Your task to perform on an android device: Search for seafood restaurants on Google Maps Image 0: 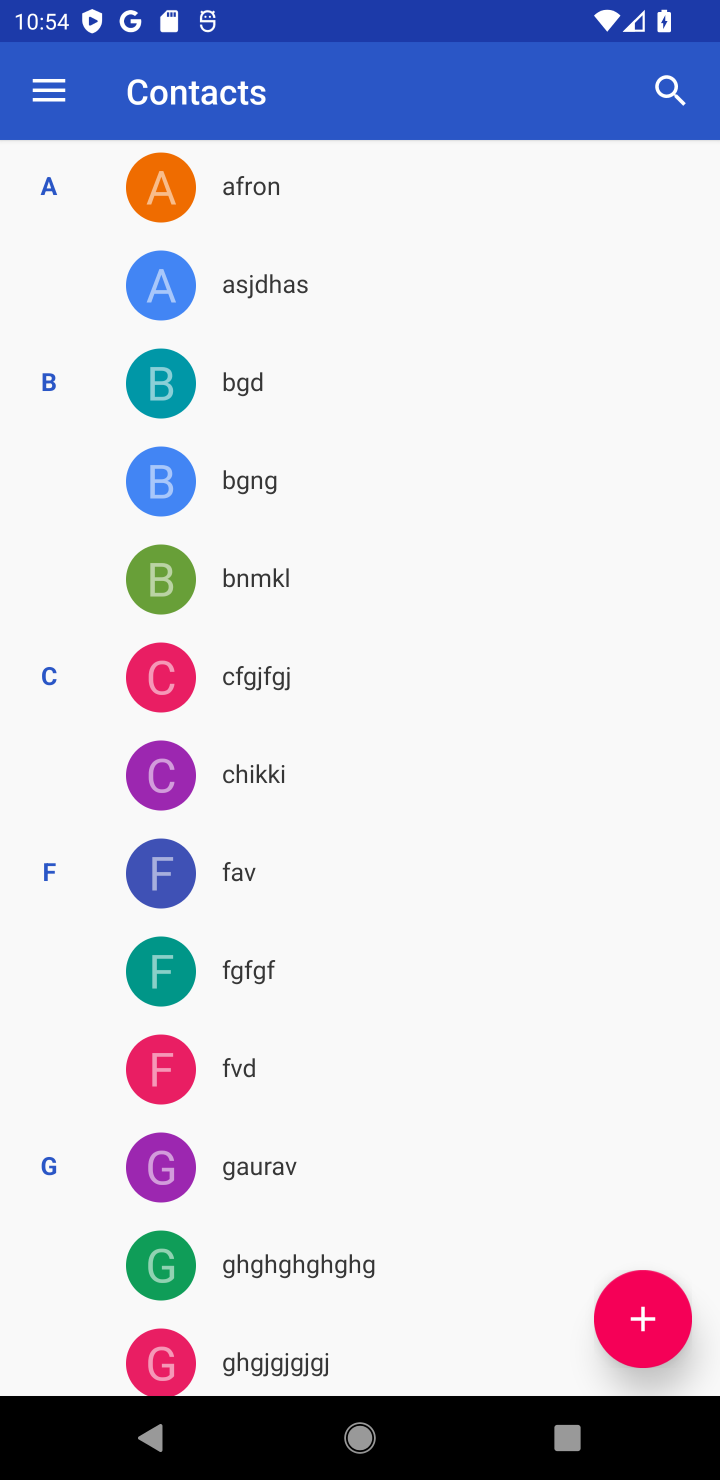
Step 0: press home button
Your task to perform on an android device: Search for seafood restaurants on Google Maps Image 1: 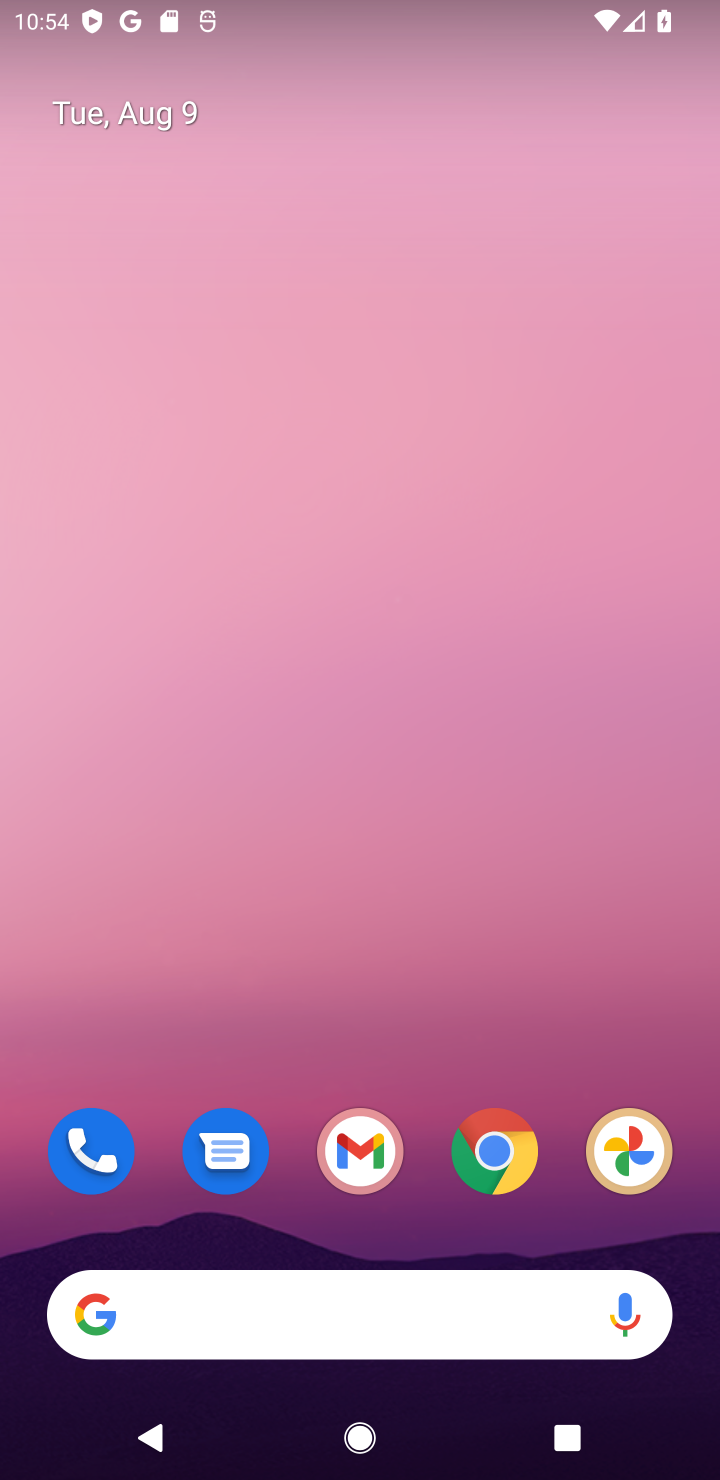
Step 1: drag from (309, 1220) to (357, 156)
Your task to perform on an android device: Search for seafood restaurants on Google Maps Image 2: 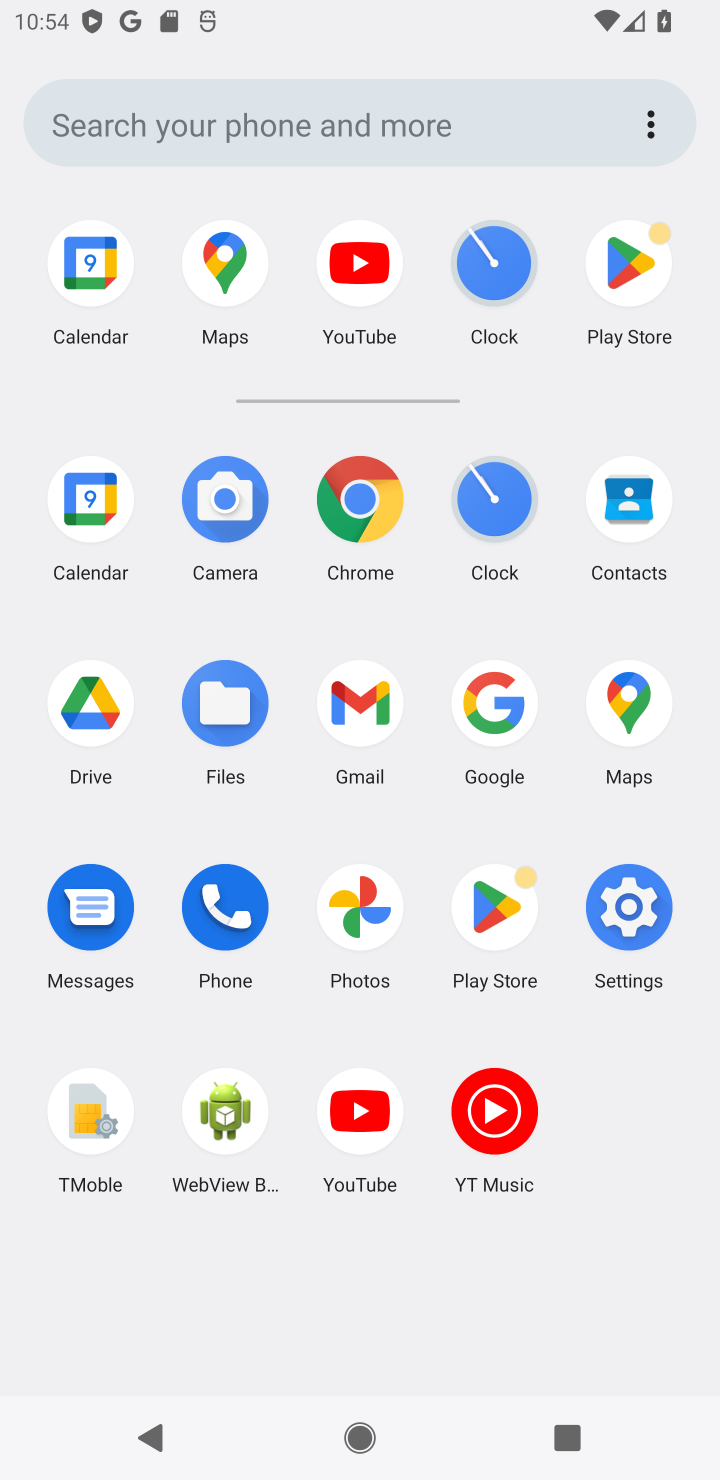
Step 2: click (603, 707)
Your task to perform on an android device: Search for seafood restaurants on Google Maps Image 3: 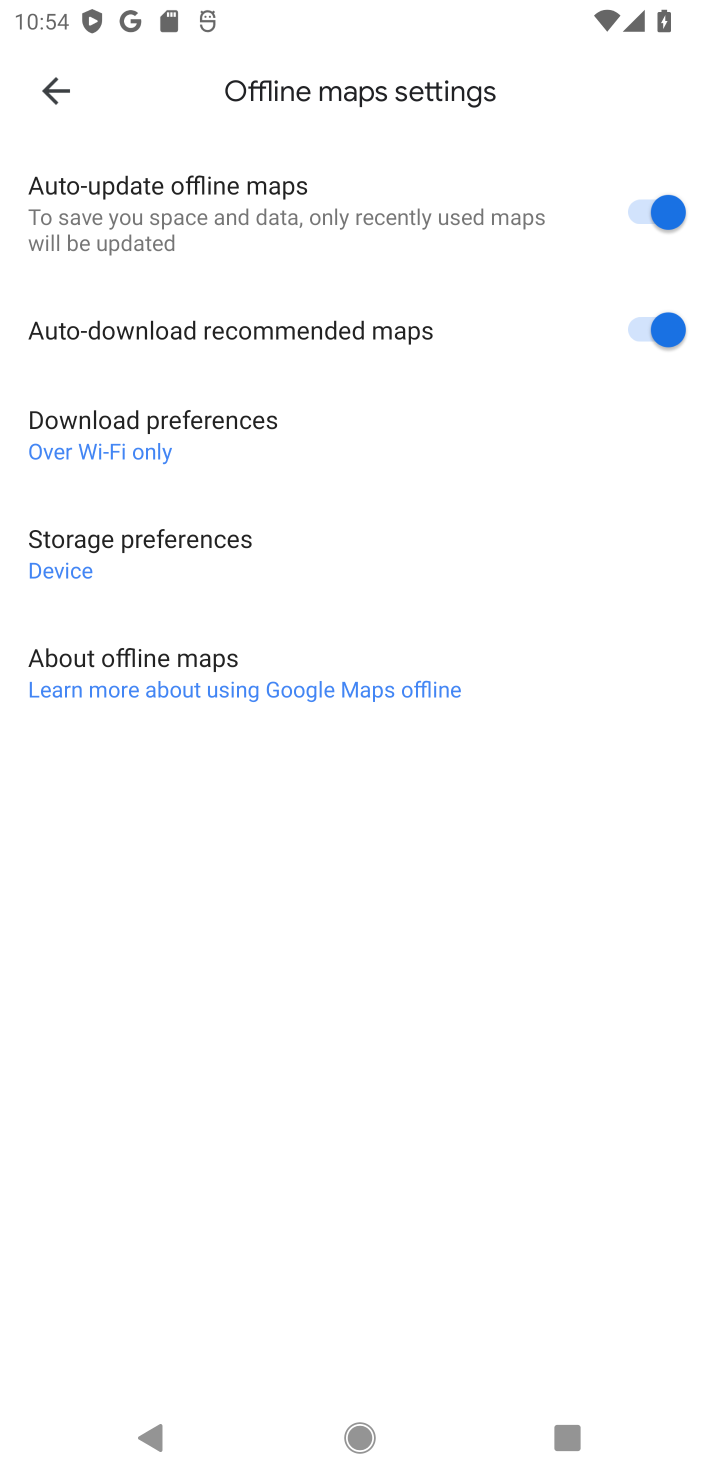
Step 3: click (58, 91)
Your task to perform on an android device: Search for seafood restaurants on Google Maps Image 4: 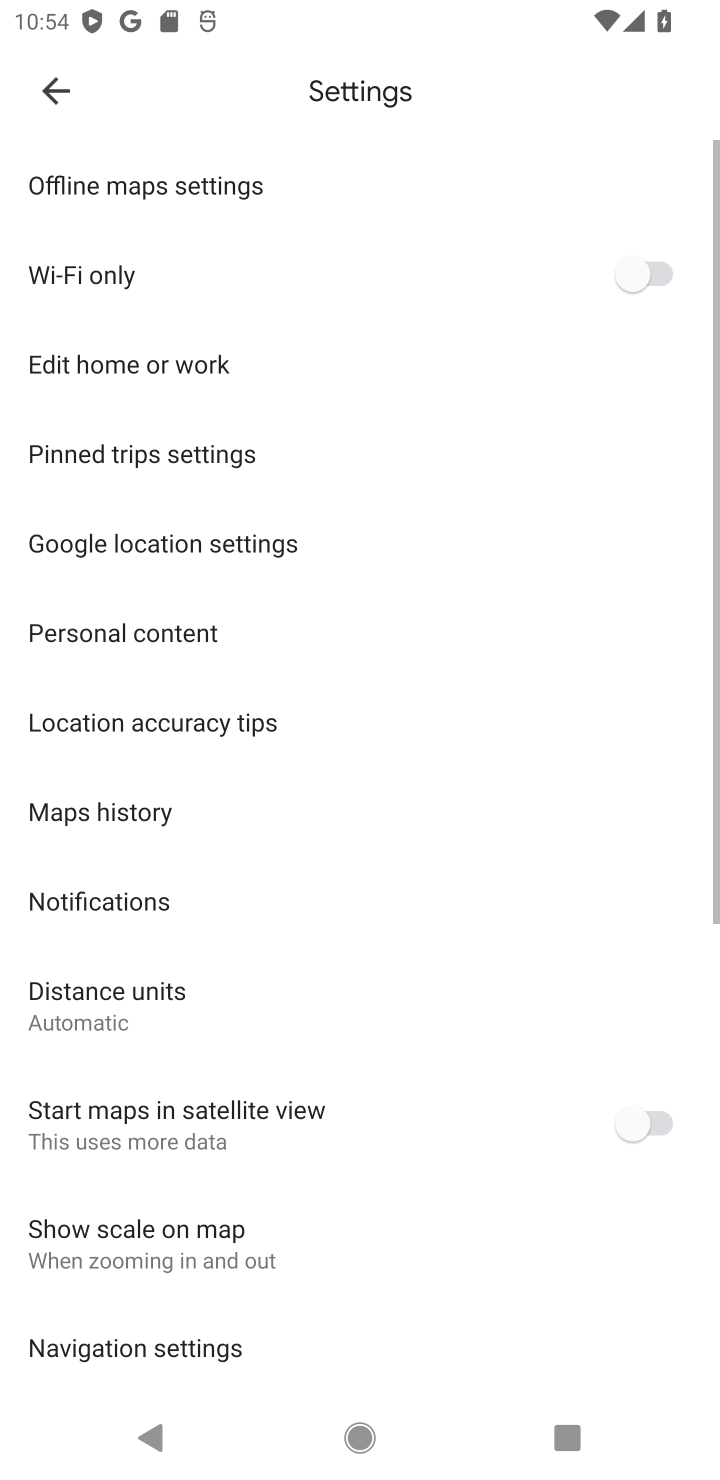
Step 4: click (58, 91)
Your task to perform on an android device: Search for seafood restaurants on Google Maps Image 5: 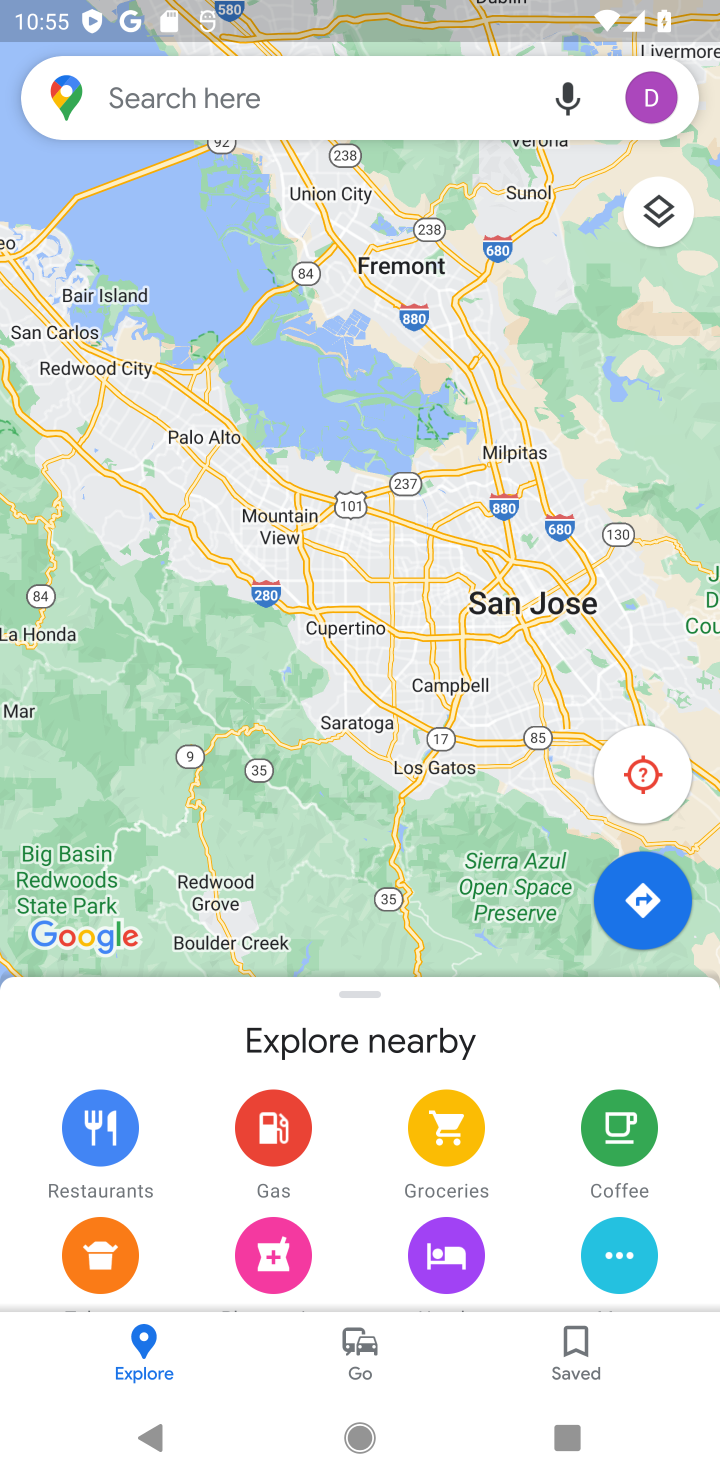
Step 5: click (218, 106)
Your task to perform on an android device: Search for seafood restaurants on Google Maps Image 6: 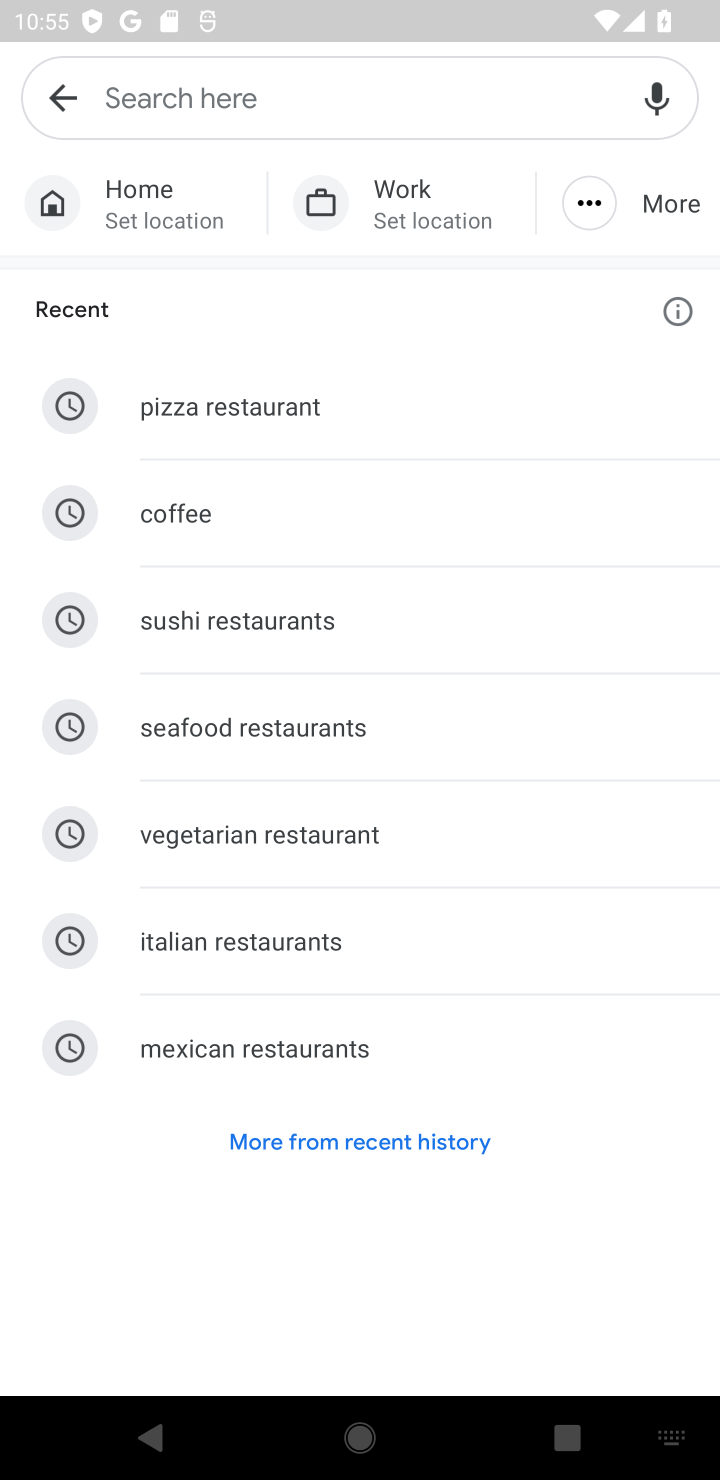
Step 6: click (164, 745)
Your task to perform on an android device: Search for seafood restaurants on Google Maps Image 7: 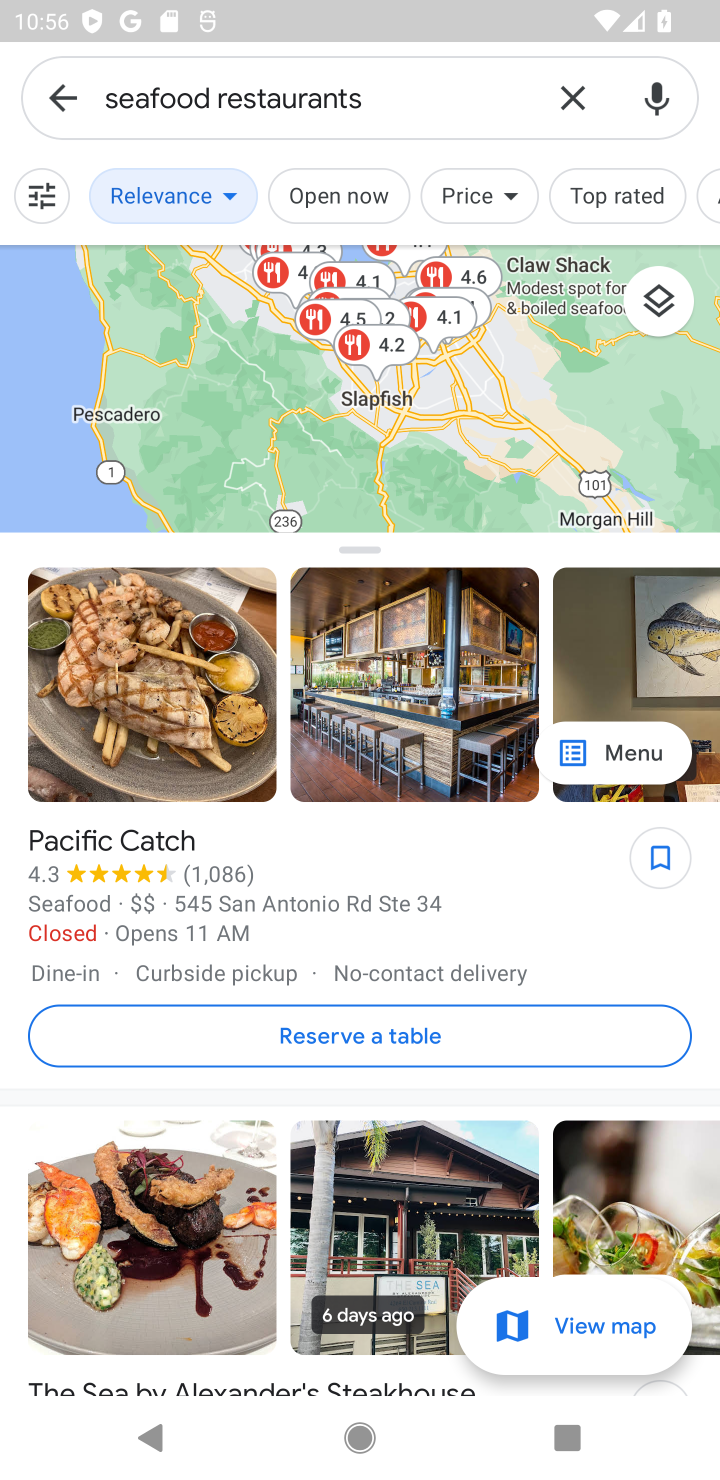
Step 7: task complete